Your task to perform on an android device: install app "Fetch Rewards" Image 0: 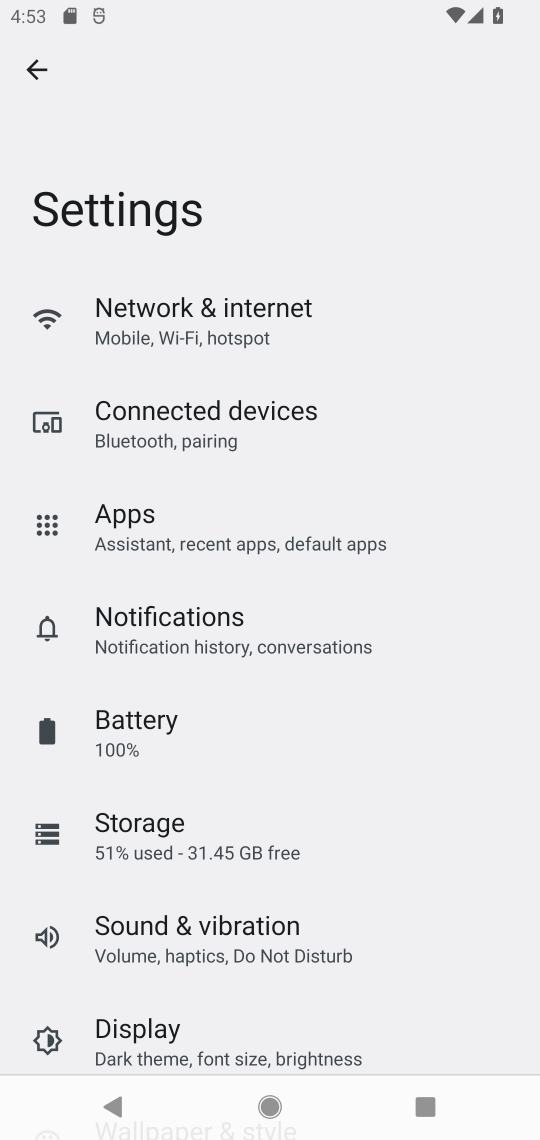
Step 0: press home button
Your task to perform on an android device: install app "Fetch Rewards" Image 1: 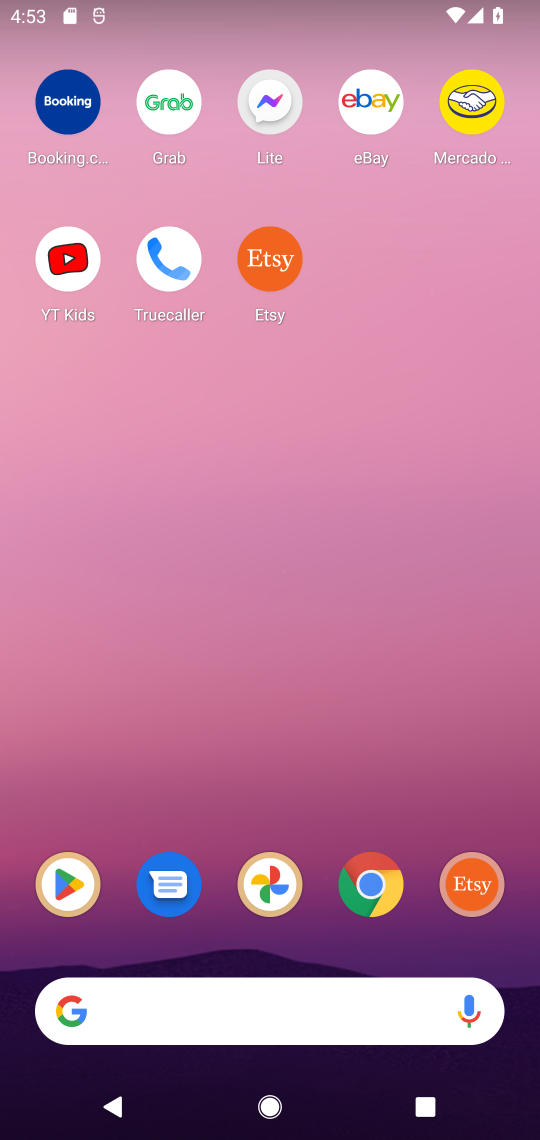
Step 1: click (49, 890)
Your task to perform on an android device: install app "Fetch Rewards" Image 2: 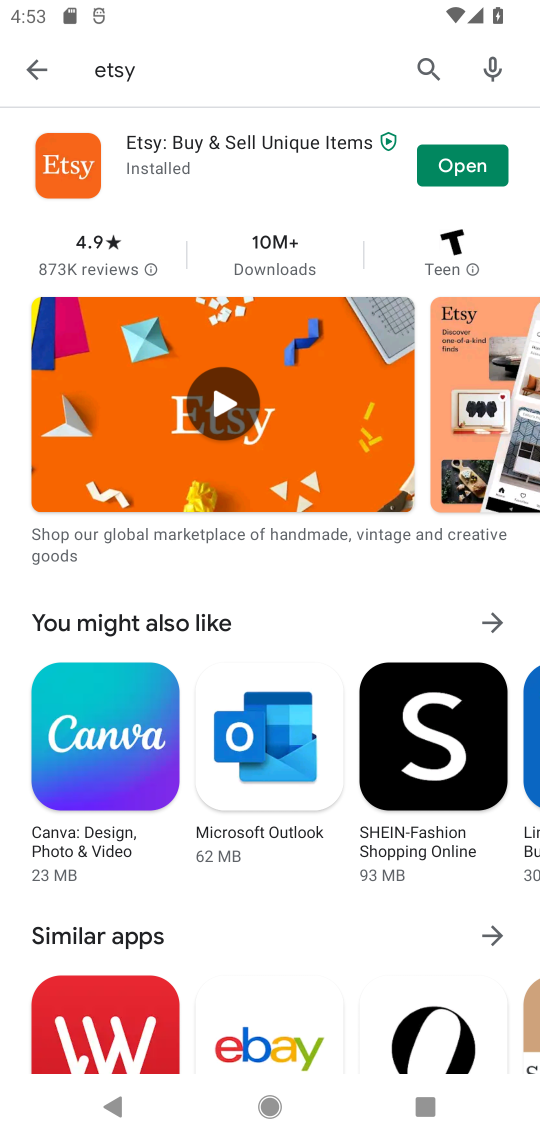
Step 2: click (43, 66)
Your task to perform on an android device: install app "Fetch Rewards" Image 3: 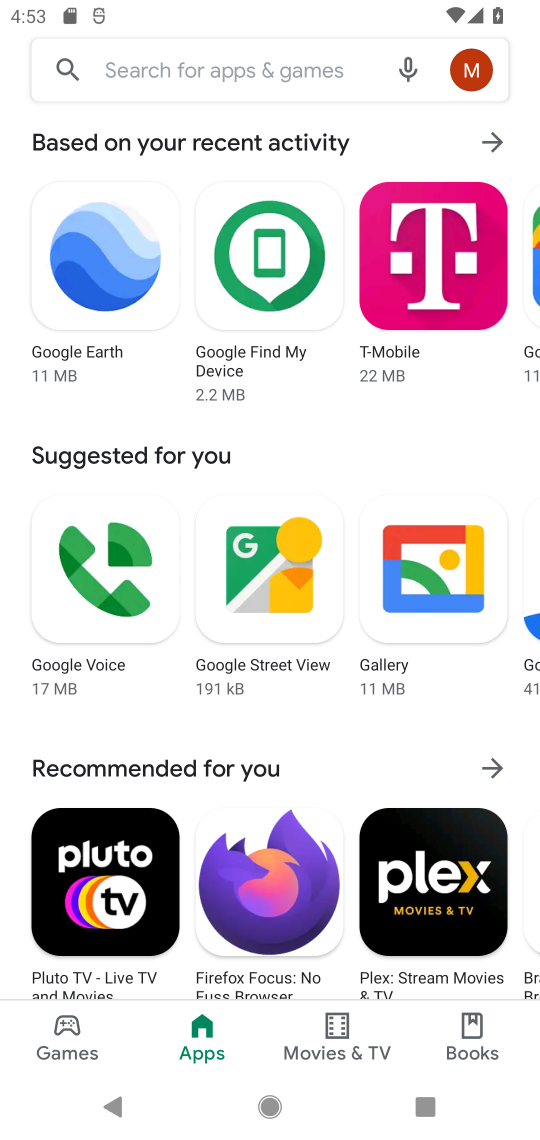
Step 3: click (211, 62)
Your task to perform on an android device: install app "Fetch Rewards" Image 4: 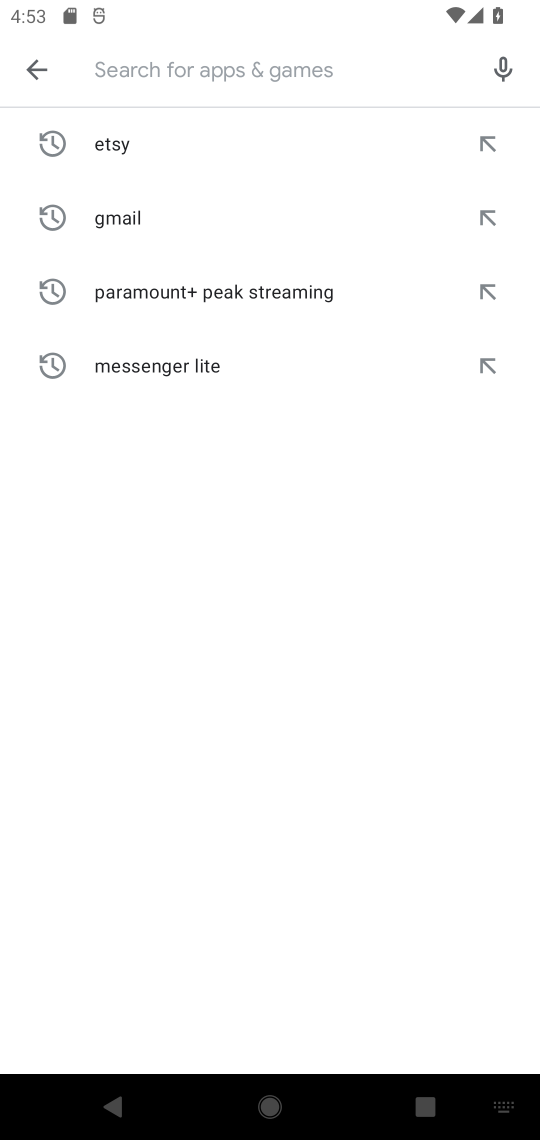
Step 4: type "Fetch Rewards""
Your task to perform on an android device: install app "Fetch Rewards" Image 5: 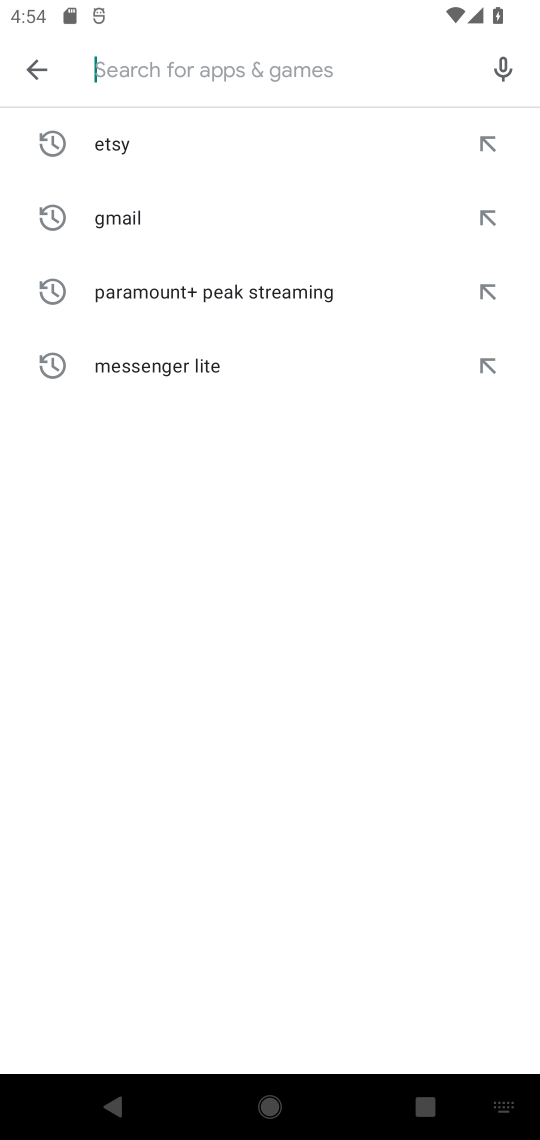
Step 5: type "Fetch Rewards"
Your task to perform on an android device: install app "Fetch Rewards" Image 6: 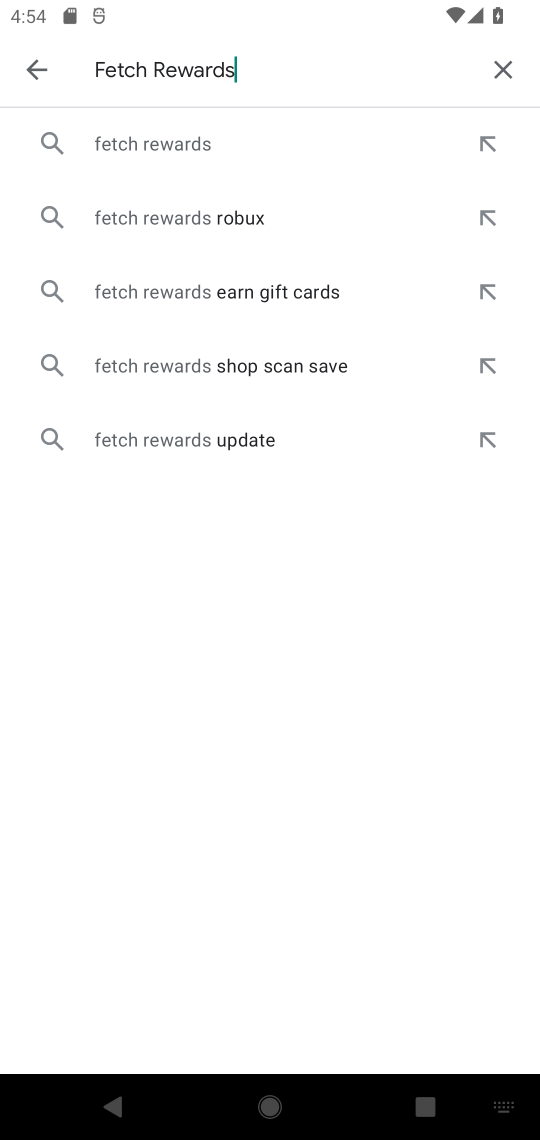
Step 6: click (162, 136)
Your task to perform on an android device: install app "Fetch Rewards" Image 7: 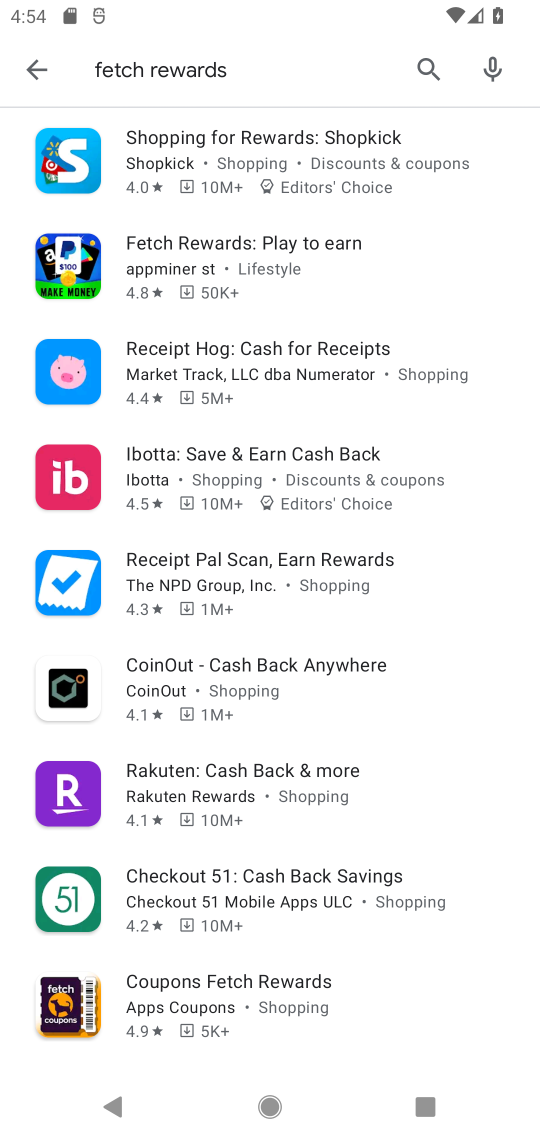
Step 7: drag from (341, 460) to (535, 411)
Your task to perform on an android device: install app "Fetch Rewards" Image 8: 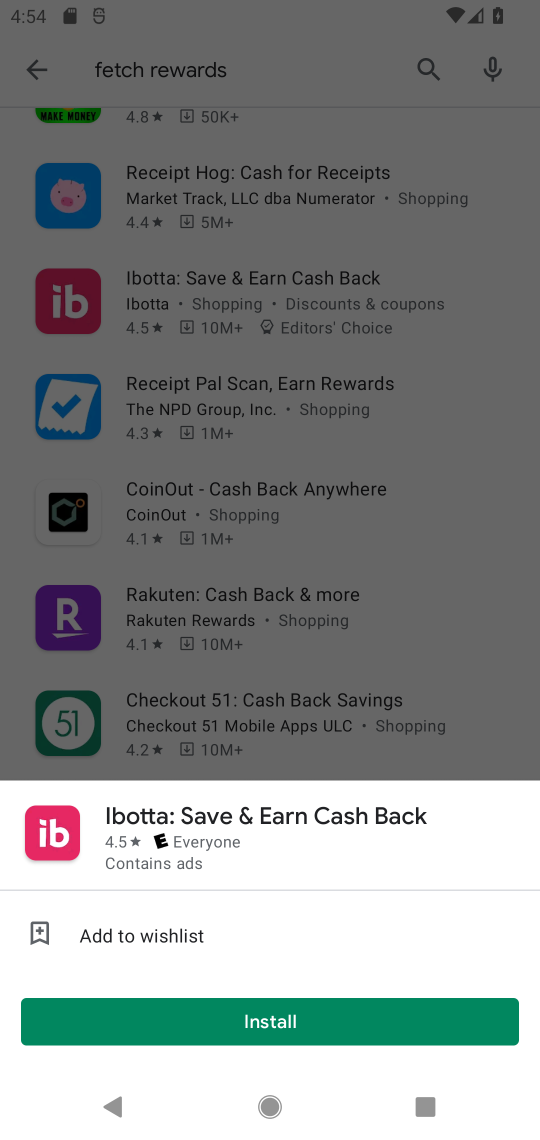
Step 8: click (483, 513)
Your task to perform on an android device: install app "Fetch Rewards" Image 9: 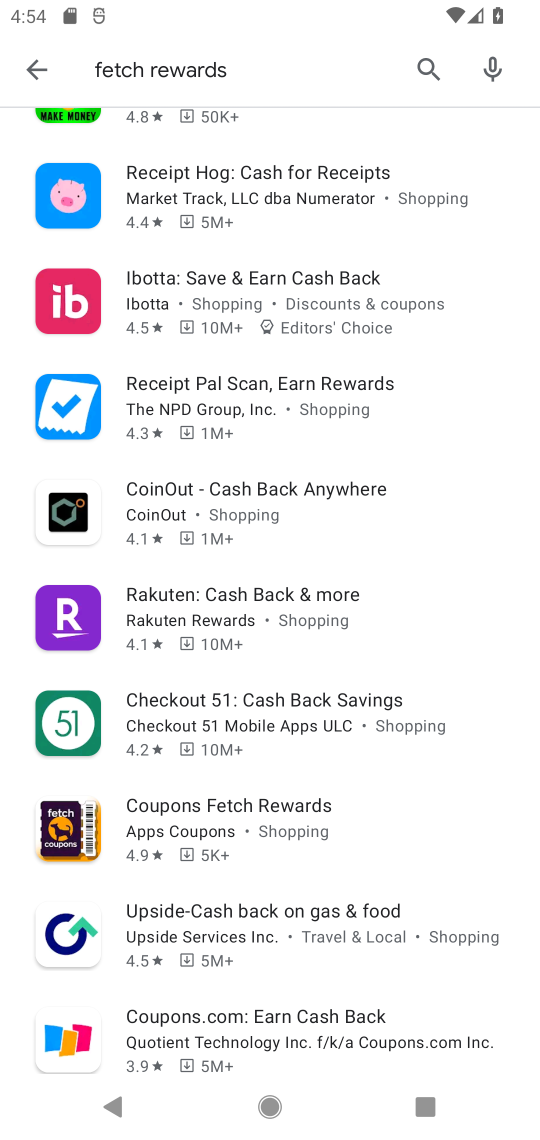
Step 9: drag from (253, 311) to (260, 818)
Your task to perform on an android device: install app "Fetch Rewards" Image 10: 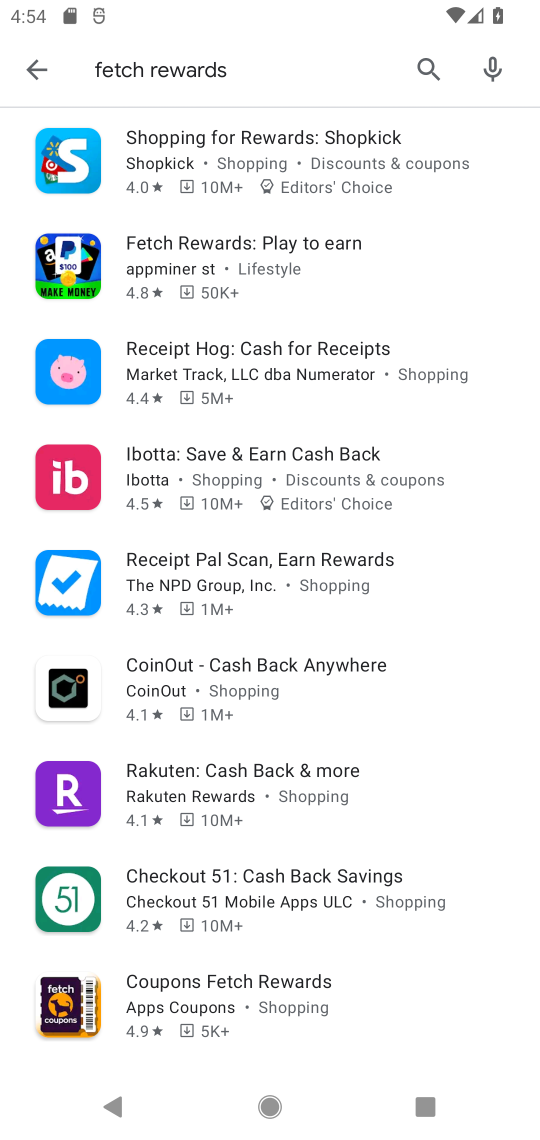
Step 10: click (223, 250)
Your task to perform on an android device: install app "Fetch Rewards" Image 11: 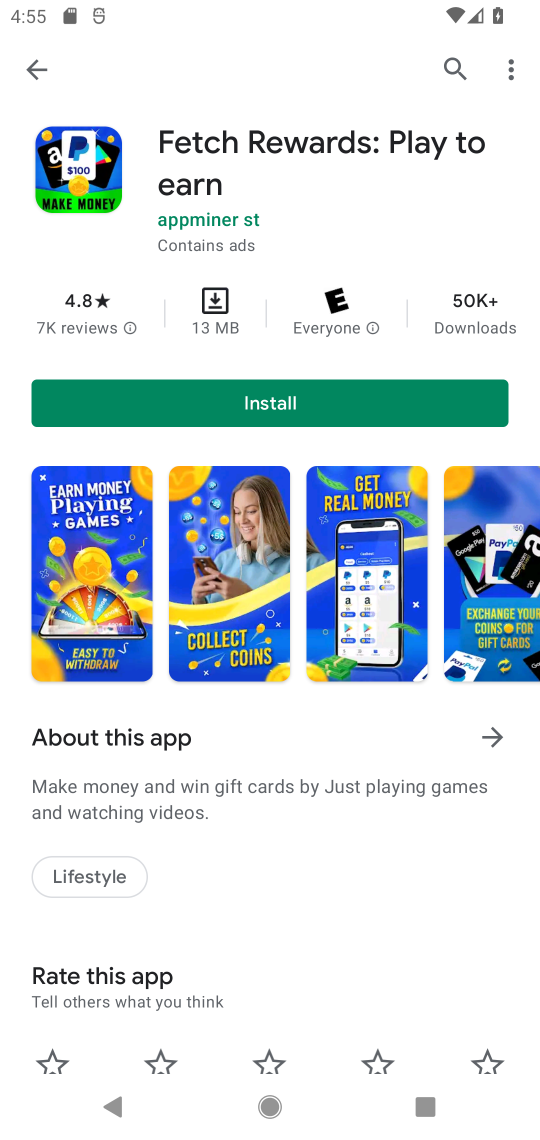
Step 11: click (464, 395)
Your task to perform on an android device: install app "Fetch Rewards" Image 12: 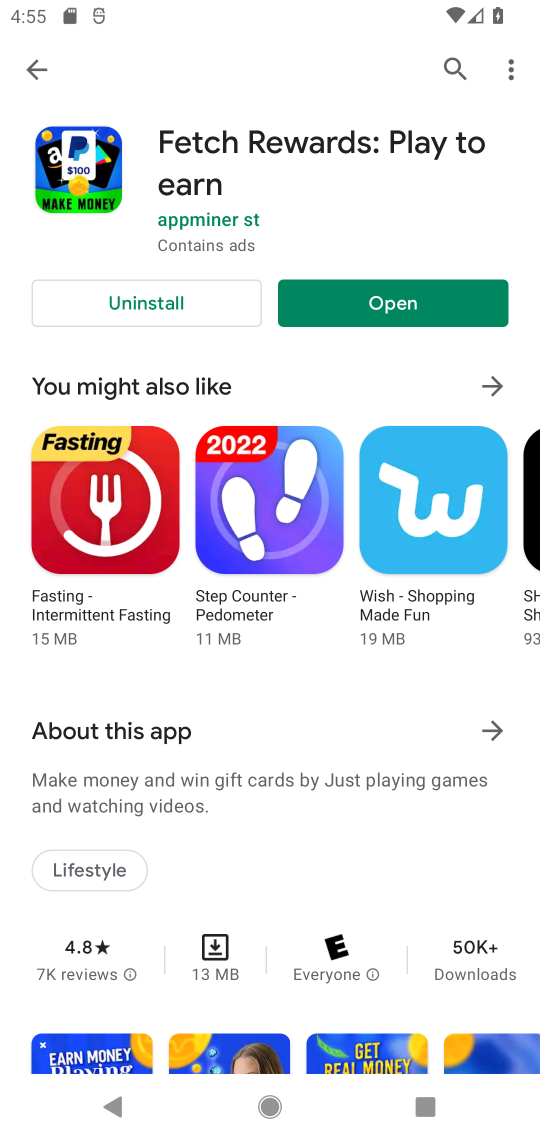
Step 12: click (449, 295)
Your task to perform on an android device: install app "Fetch Rewards" Image 13: 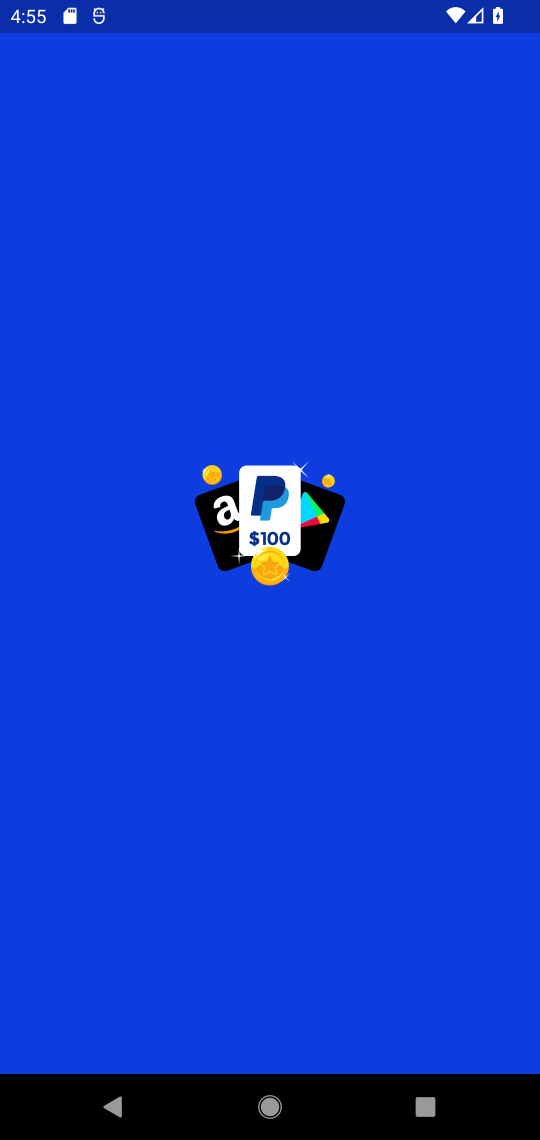
Step 13: task complete